Your task to perform on an android device: open app "Indeed Job Search" (install if not already installed) and enter user name: "quixotic@inbox.com" and password: "microphones" Image 0: 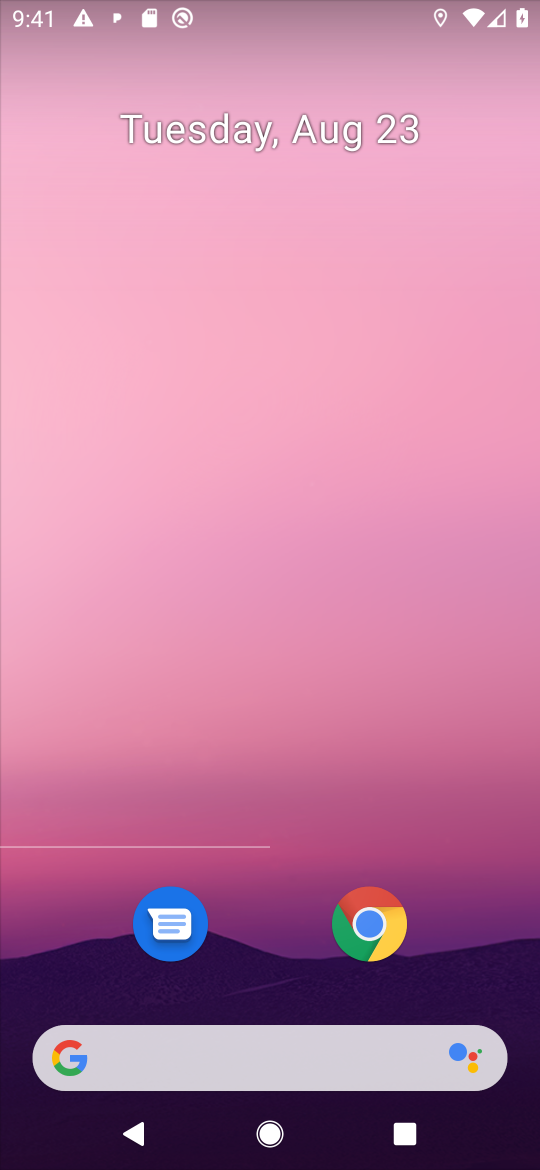
Step 0: press home button
Your task to perform on an android device: open app "Indeed Job Search" (install if not already installed) and enter user name: "quixotic@inbox.com" and password: "microphones" Image 1: 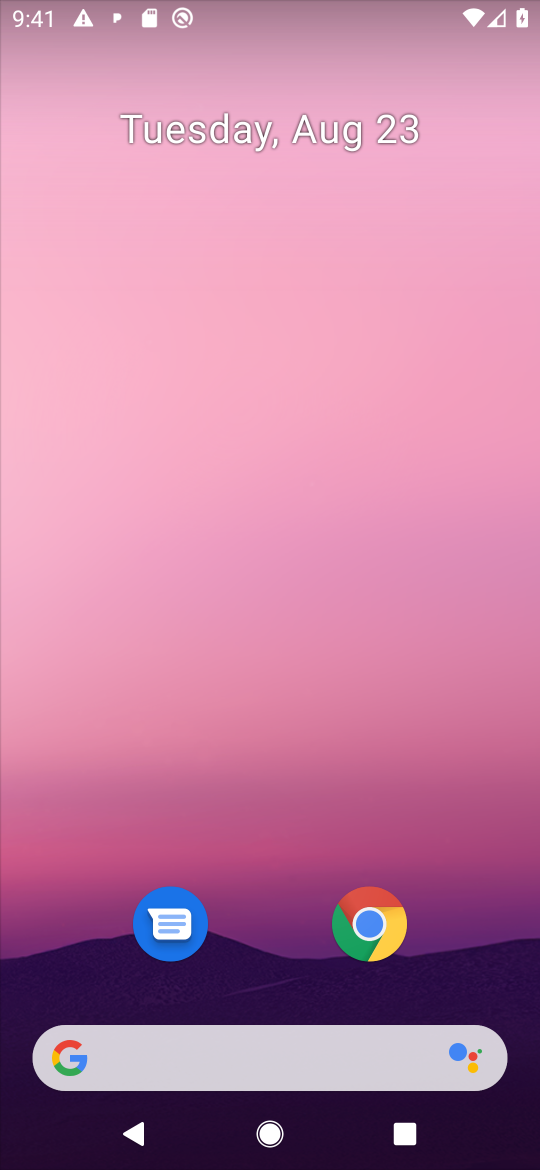
Step 1: drag from (476, 971) to (466, 193)
Your task to perform on an android device: open app "Indeed Job Search" (install if not already installed) and enter user name: "quixotic@inbox.com" and password: "microphones" Image 2: 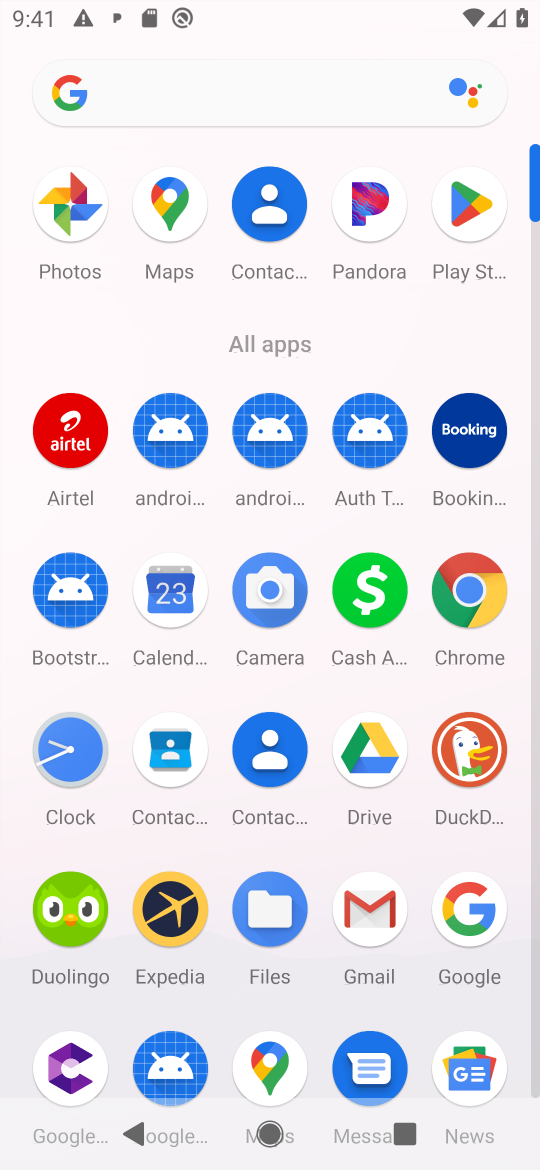
Step 2: click (468, 214)
Your task to perform on an android device: open app "Indeed Job Search" (install if not already installed) and enter user name: "quixotic@inbox.com" and password: "microphones" Image 3: 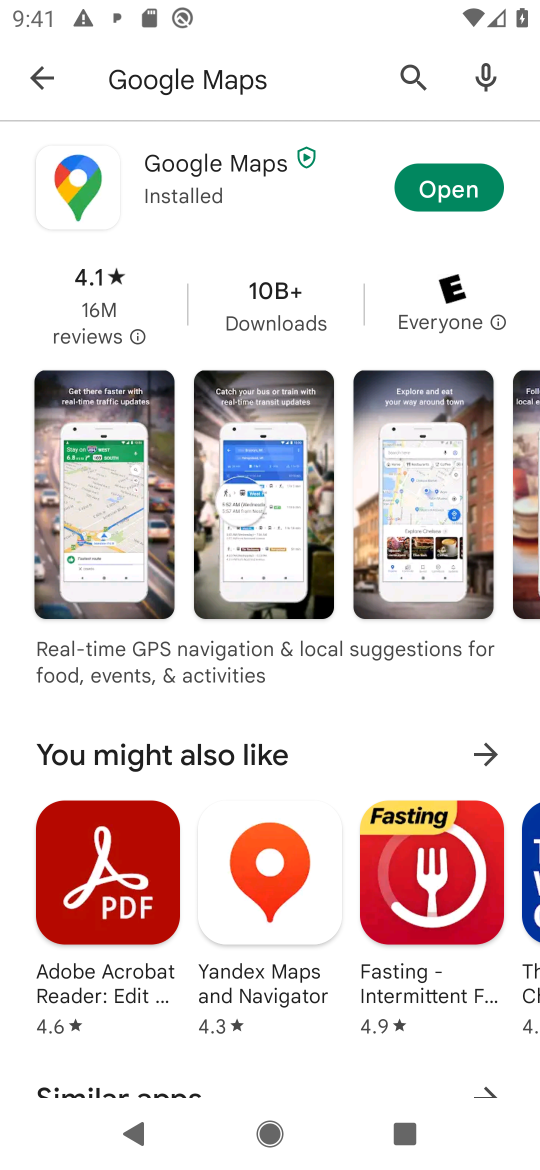
Step 3: press back button
Your task to perform on an android device: open app "Indeed Job Search" (install if not already installed) and enter user name: "quixotic@inbox.com" and password: "microphones" Image 4: 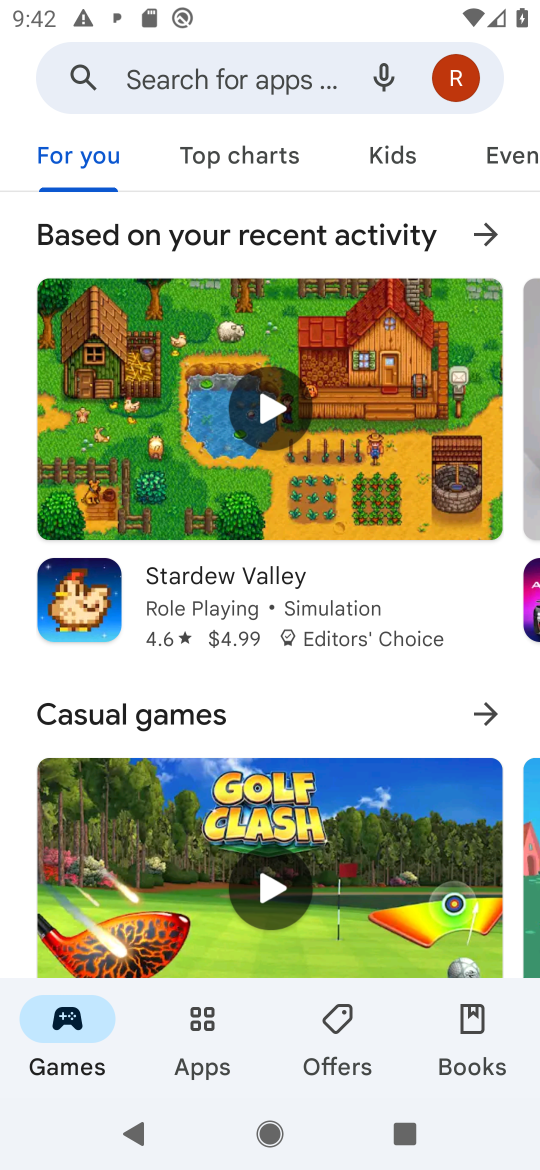
Step 4: click (206, 73)
Your task to perform on an android device: open app "Indeed Job Search" (install if not already installed) and enter user name: "quixotic@inbox.com" and password: "microphones" Image 5: 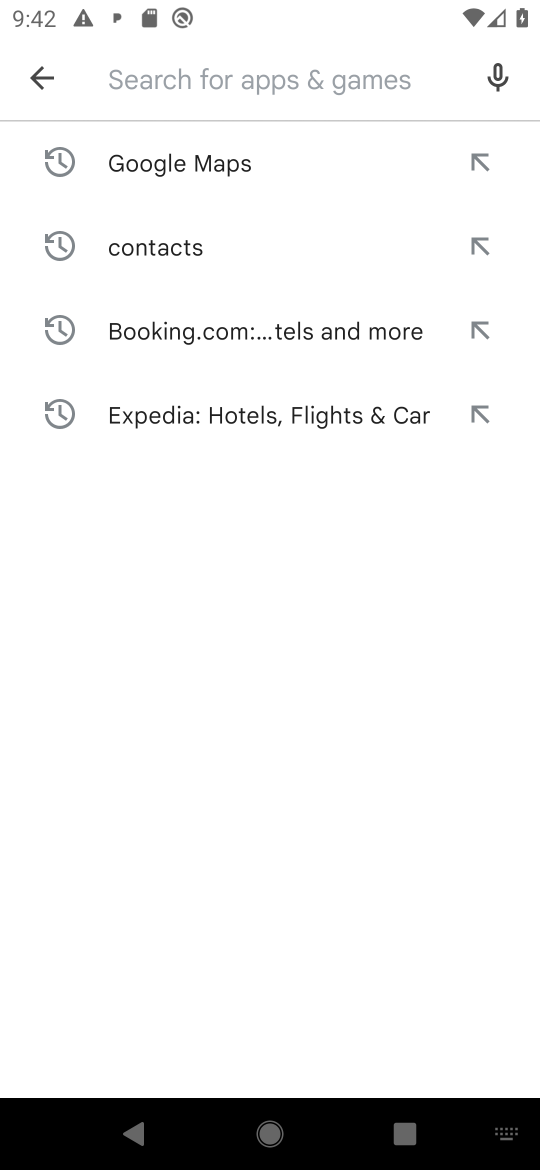
Step 5: type "Indeed Job Search"
Your task to perform on an android device: open app "Indeed Job Search" (install if not already installed) and enter user name: "quixotic@inbox.com" and password: "microphones" Image 6: 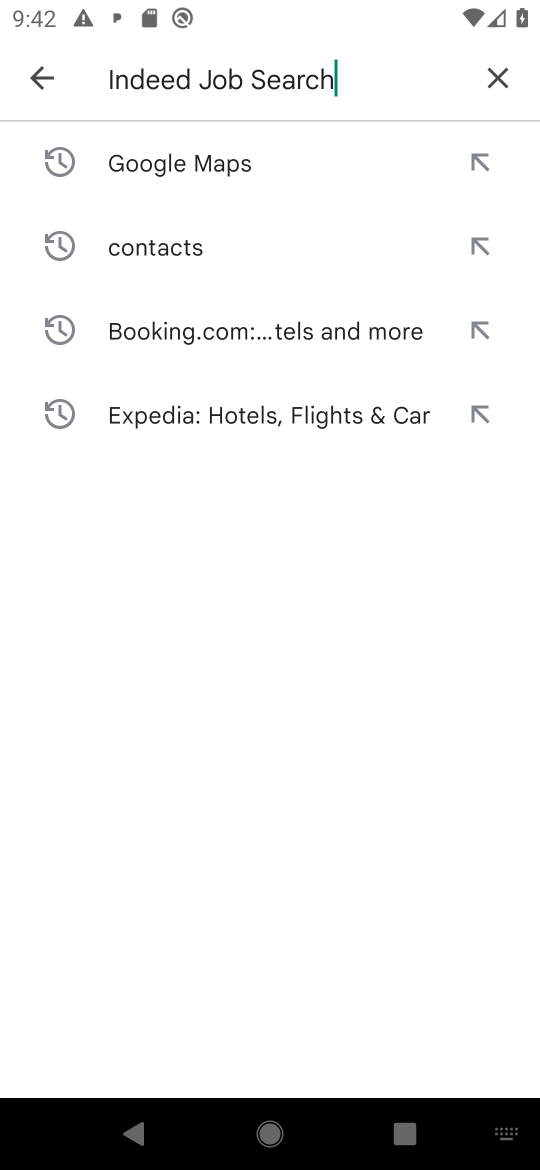
Step 6: press enter
Your task to perform on an android device: open app "Indeed Job Search" (install if not already installed) and enter user name: "quixotic@inbox.com" and password: "microphones" Image 7: 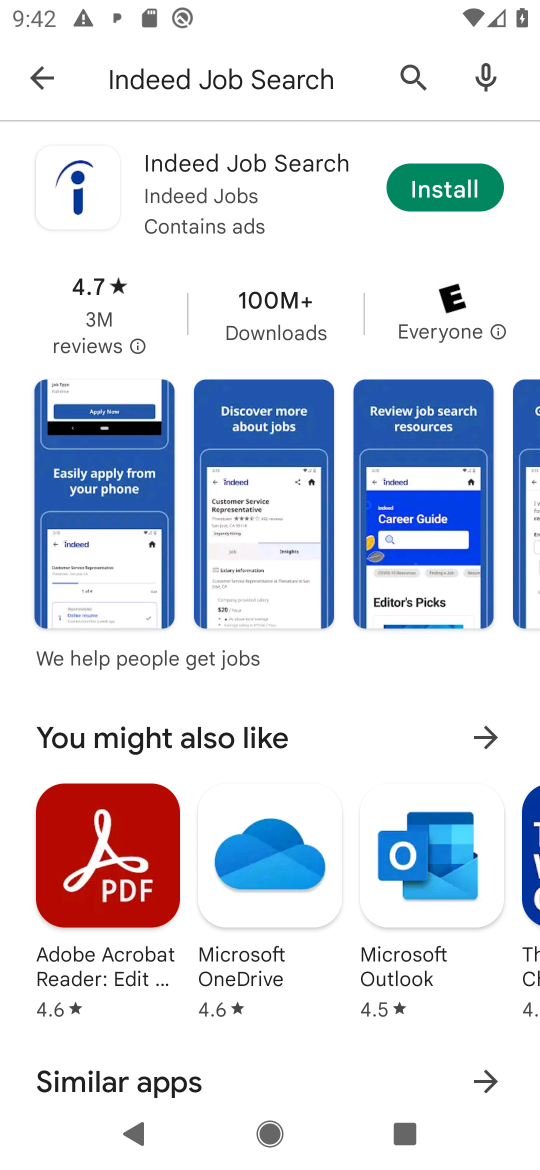
Step 7: click (452, 193)
Your task to perform on an android device: open app "Indeed Job Search" (install if not already installed) and enter user name: "quixotic@inbox.com" and password: "microphones" Image 8: 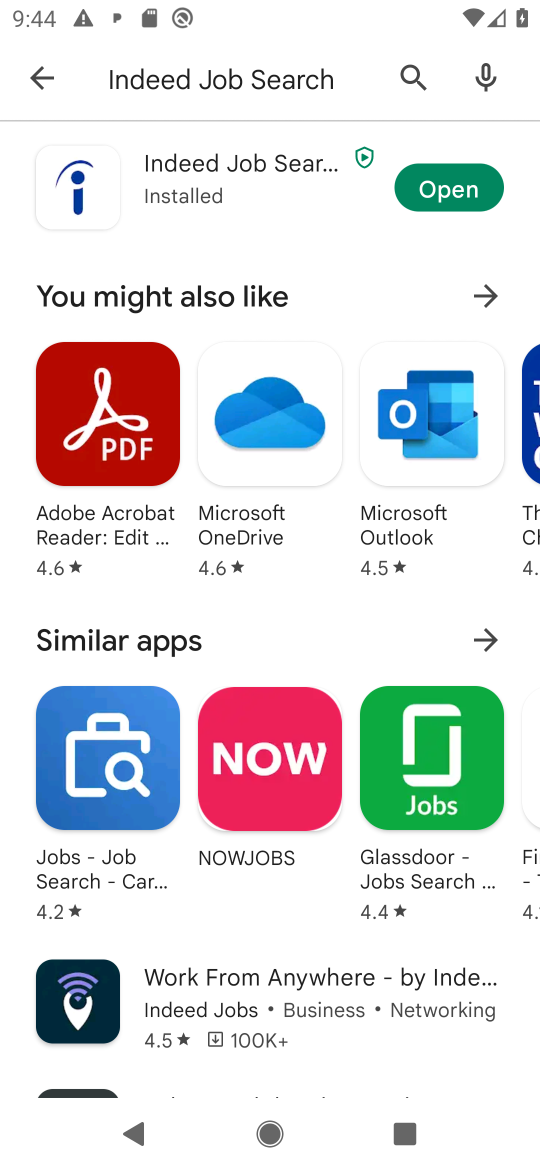
Step 8: click (486, 198)
Your task to perform on an android device: open app "Indeed Job Search" (install if not already installed) and enter user name: "quixotic@inbox.com" and password: "microphones" Image 9: 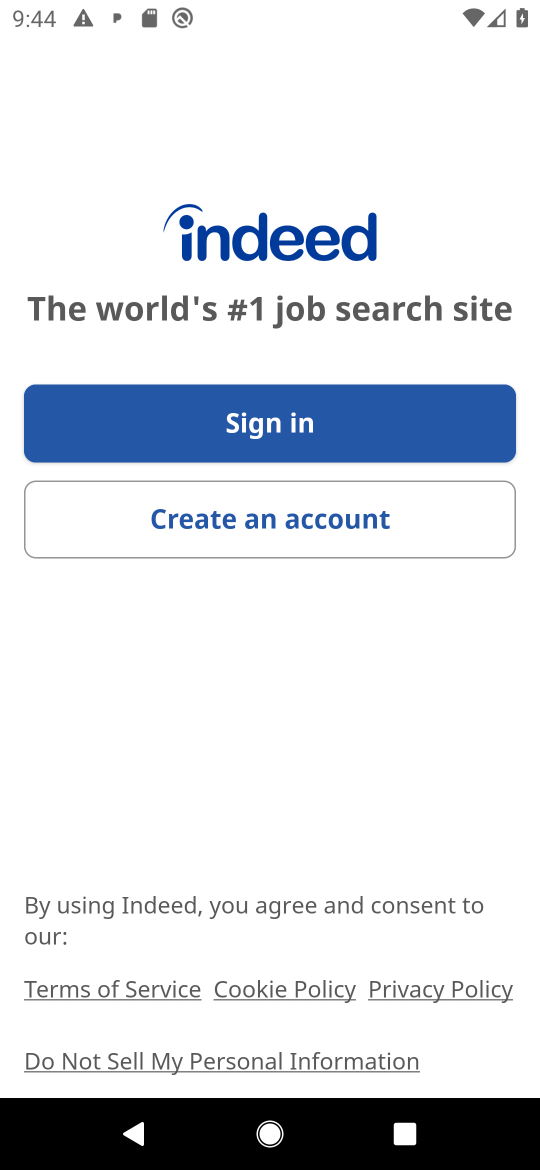
Step 9: click (471, 425)
Your task to perform on an android device: open app "Indeed Job Search" (install if not already installed) and enter user name: "quixotic@inbox.com" and password: "microphones" Image 10: 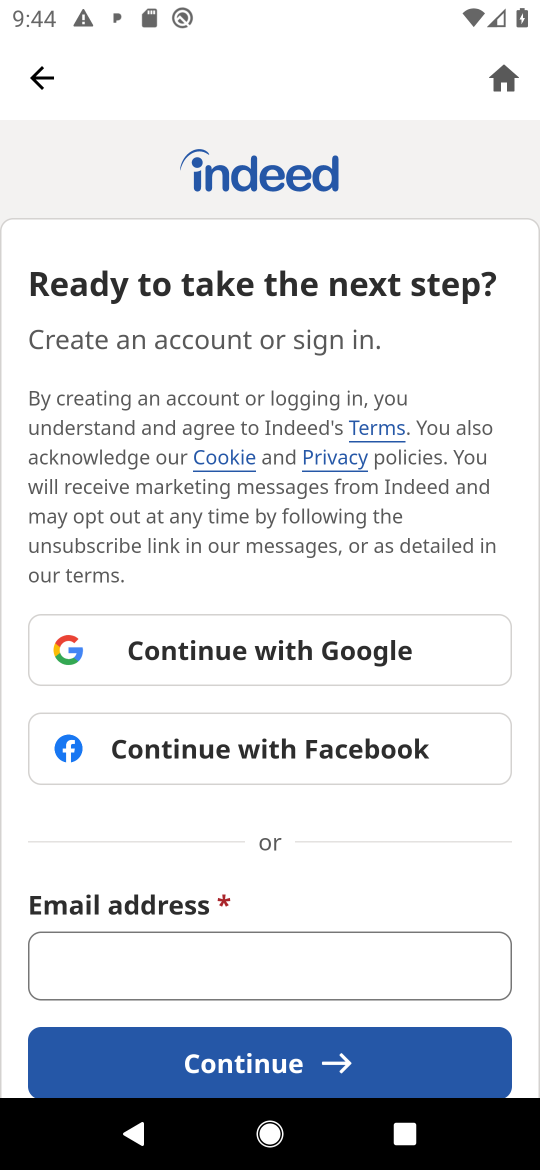
Step 10: click (221, 963)
Your task to perform on an android device: open app "Indeed Job Search" (install if not already installed) and enter user name: "quixotic@inbox.com" and password: "microphones" Image 11: 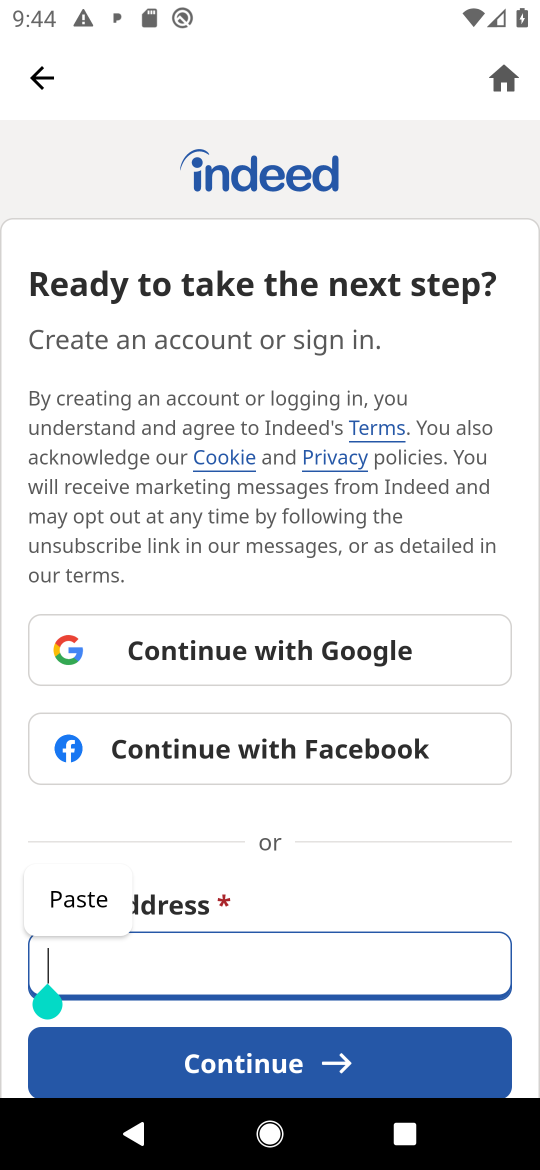
Step 11: type "quixotic@inbox.com"
Your task to perform on an android device: open app "Indeed Job Search" (install if not already installed) and enter user name: "quixotic@inbox.com" and password: "microphones" Image 12: 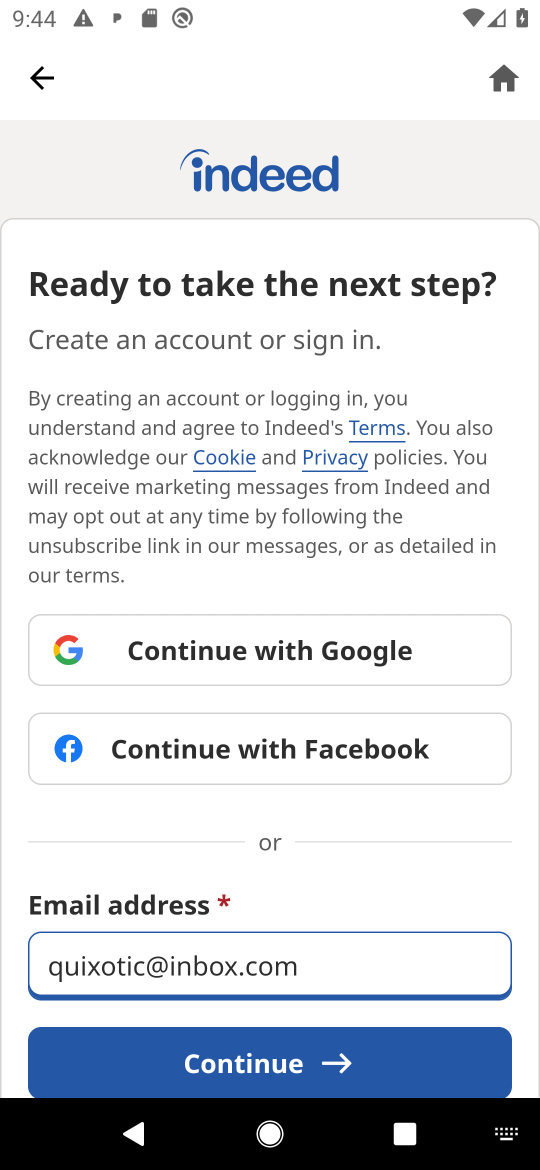
Step 12: click (334, 1073)
Your task to perform on an android device: open app "Indeed Job Search" (install if not already installed) and enter user name: "quixotic@inbox.com" and password: "microphones" Image 13: 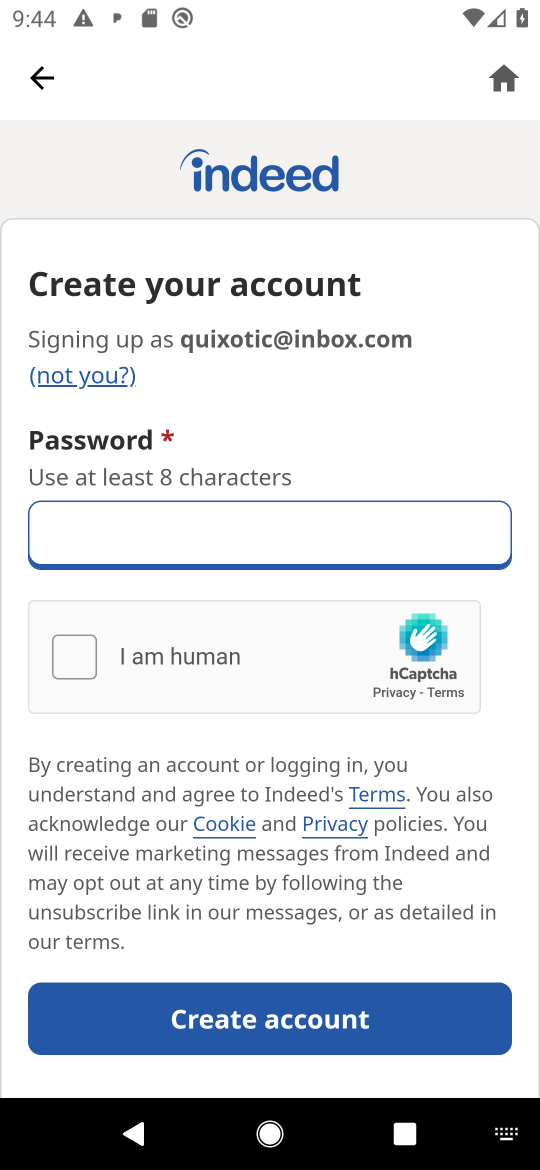
Step 13: type "microphones"
Your task to perform on an android device: open app "Indeed Job Search" (install if not already installed) and enter user name: "quixotic@inbox.com" and password: "microphones" Image 14: 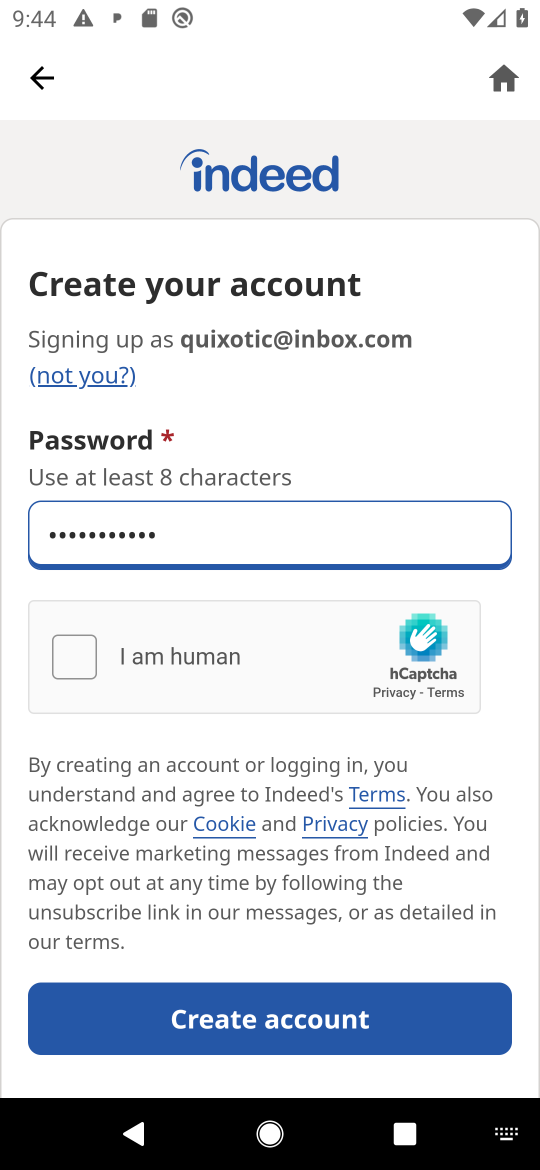
Step 14: task complete